Your task to perform on an android device: turn off smart reply in the gmail app Image 0: 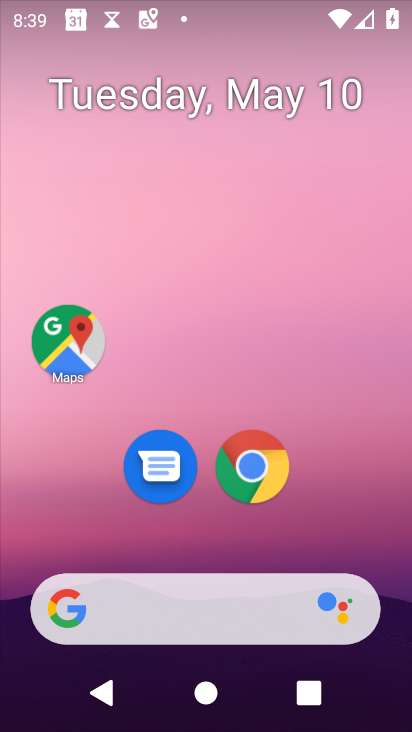
Step 0: drag from (261, 550) to (298, 22)
Your task to perform on an android device: turn off smart reply in the gmail app Image 1: 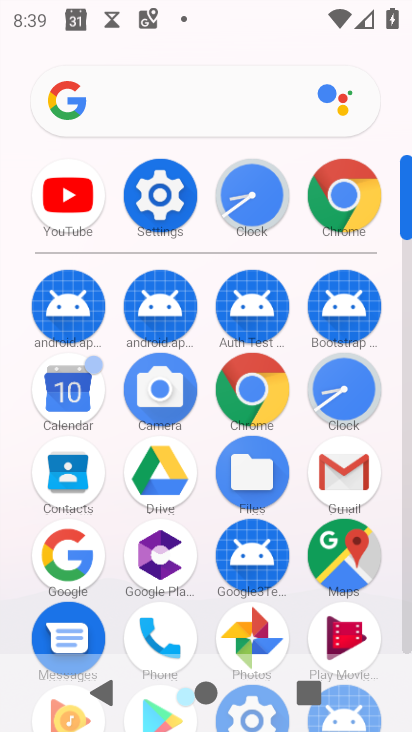
Step 1: click (337, 456)
Your task to perform on an android device: turn off smart reply in the gmail app Image 2: 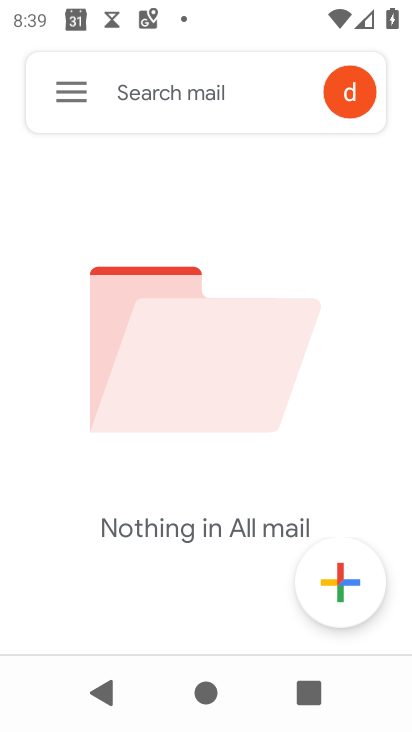
Step 2: click (51, 85)
Your task to perform on an android device: turn off smart reply in the gmail app Image 3: 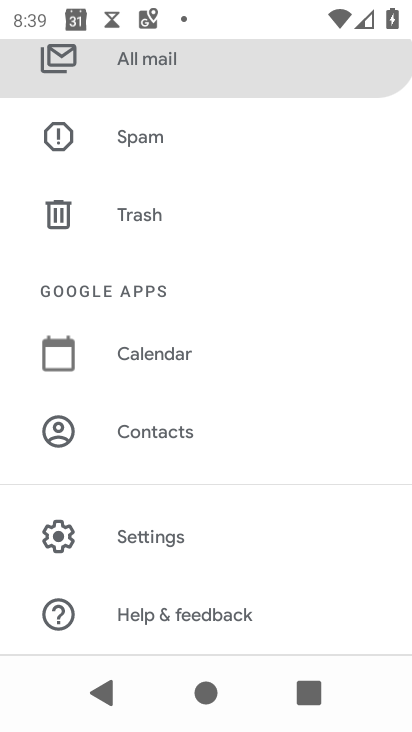
Step 3: click (241, 543)
Your task to perform on an android device: turn off smart reply in the gmail app Image 4: 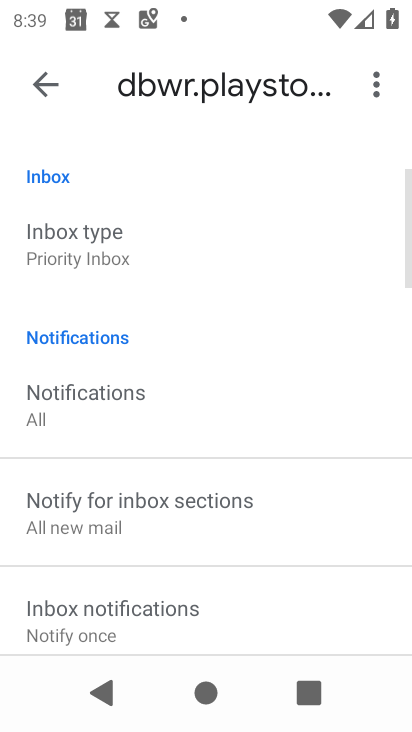
Step 4: drag from (203, 588) to (193, 395)
Your task to perform on an android device: turn off smart reply in the gmail app Image 5: 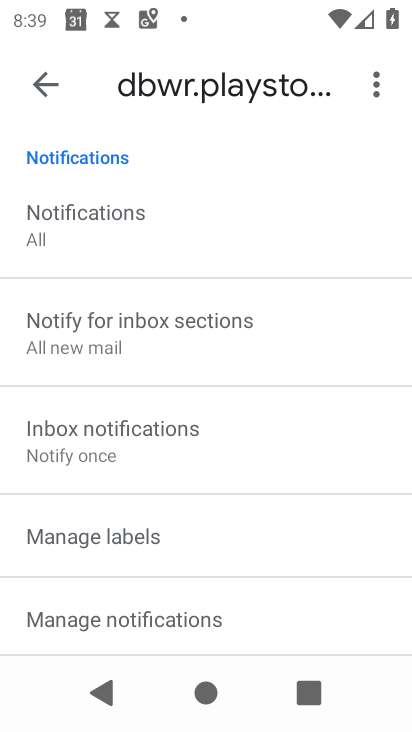
Step 5: drag from (207, 555) to (189, 397)
Your task to perform on an android device: turn off smart reply in the gmail app Image 6: 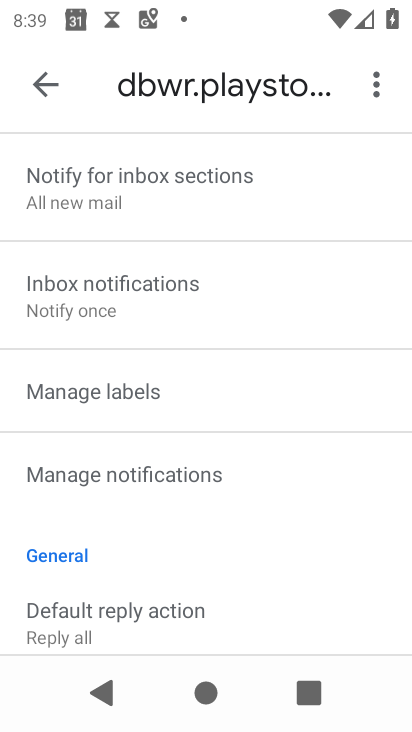
Step 6: drag from (176, 544) to (174, 483)
Your task to perform on an android device: turn off smart reply in the gmail app Image 7: 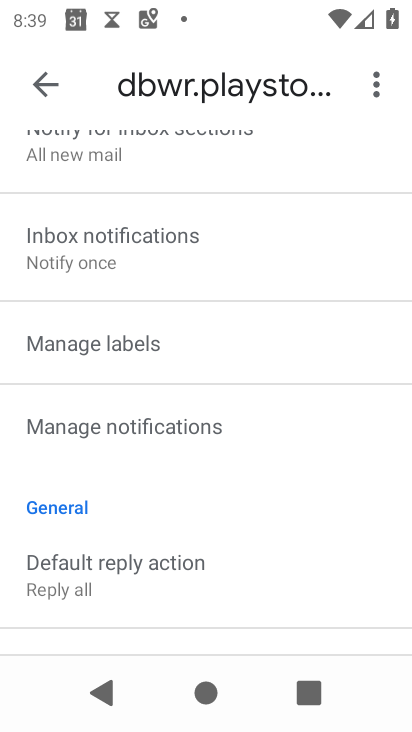
Step 7: drag from (130, 569) to (160, 409)
Your task to perform on an android device: turn off smart reply in the gmail app Image 8: 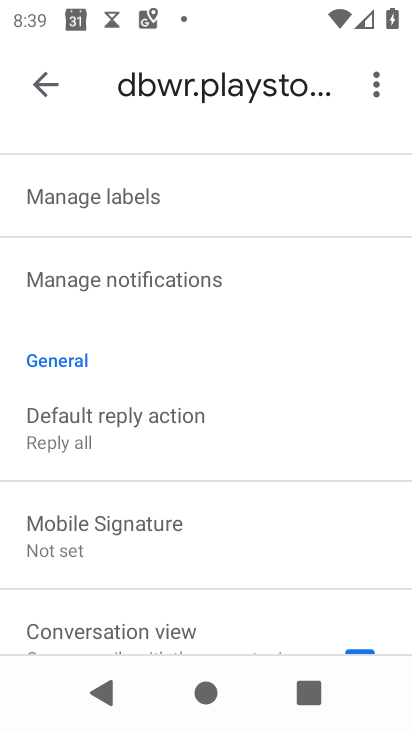
Step 8: drag from (166, 567) to (149, 463)
Your task to perform on an android device: turn off smart reply in the gmail app Image 9: 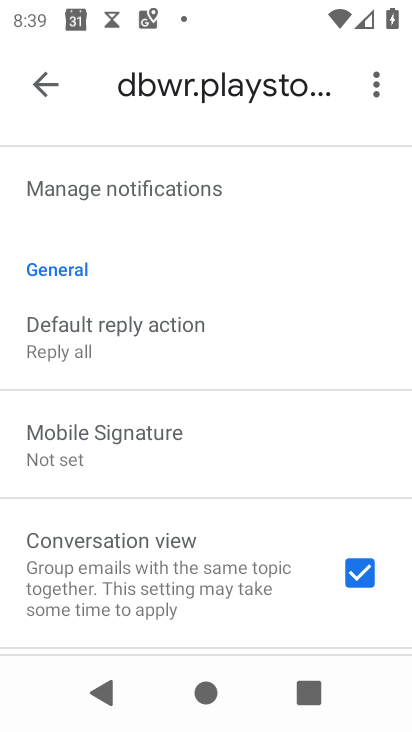
Step 9: drag from (191, 602) to (202, 425)
Your task to perform on an android device: turn off smart reply in the gmail app Image 10: 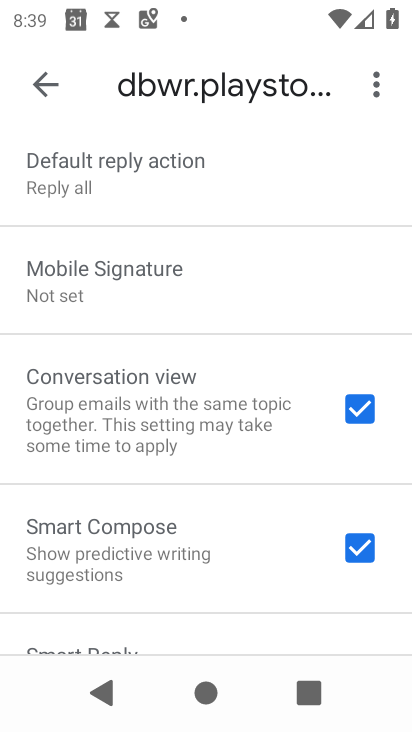
Step 10: drag from (227, 576) to (220, 415)
Your task to perform on an android device: turn off smart reply in the gmail app Image 11: 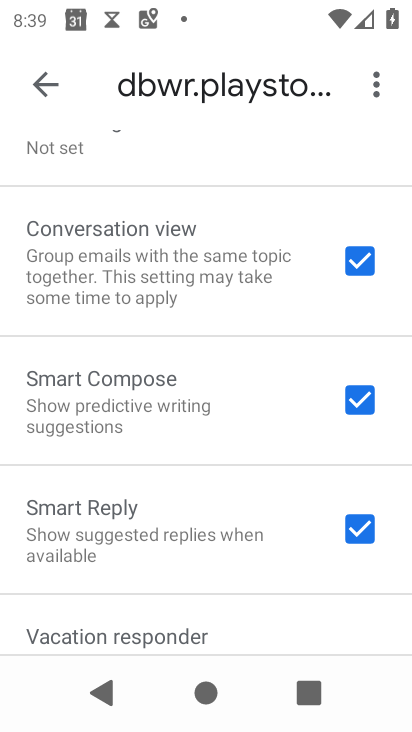
Step 11: click (354, 530)
Your task to perform on an android device: turn off smart reply in the gmail app Image 12: 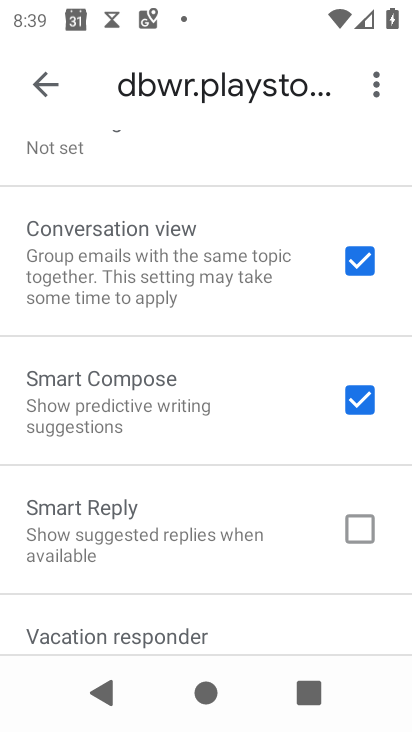
Step 12: task complete